Your task to perform on an android device: uninstall "Duolingo: language lessons" Image 0: 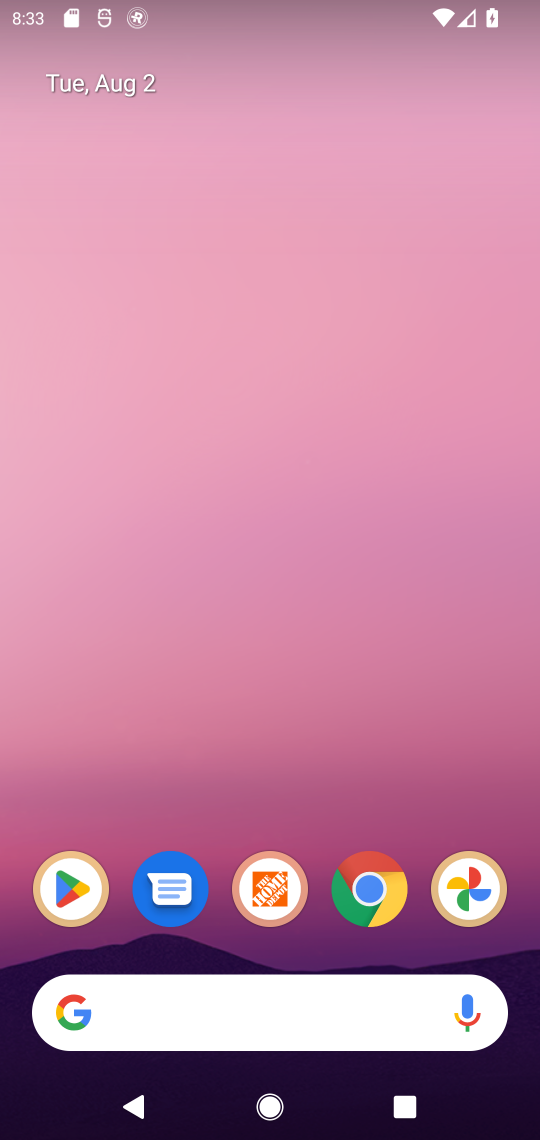
Step 0: press home button
Your task to perform on an android device: uninstall "Duolingo: language lessons" Image 1: 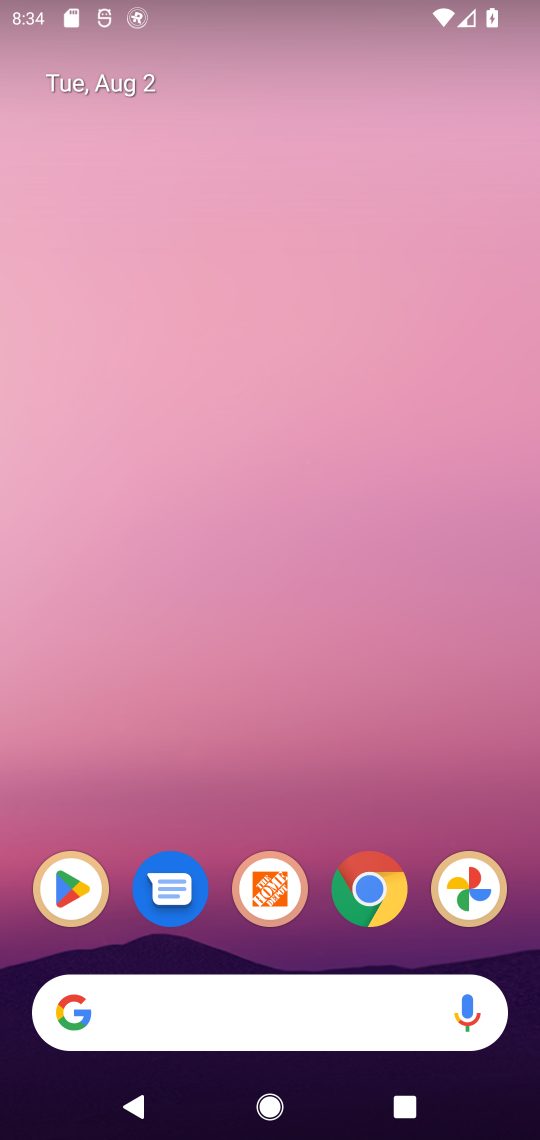
Step 1: click (77, 887)
Your task to perform on an android device: uninstall "Duolingo: language lessons" Image 2: 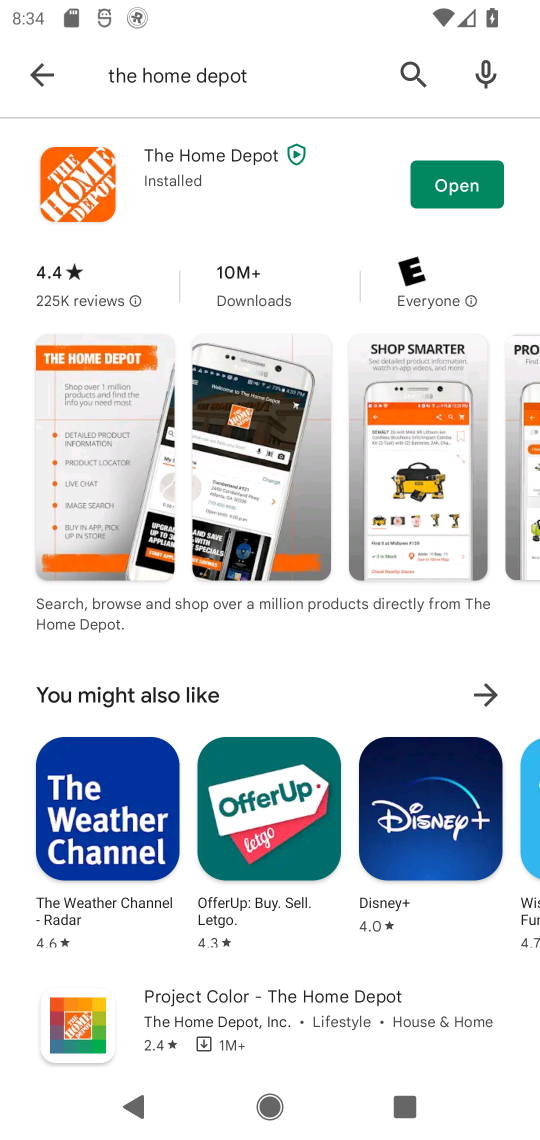
Step 2: click (404, 64)
Your task to perform on an android device: uninstall "Duolingo: language lessons" Image 3: 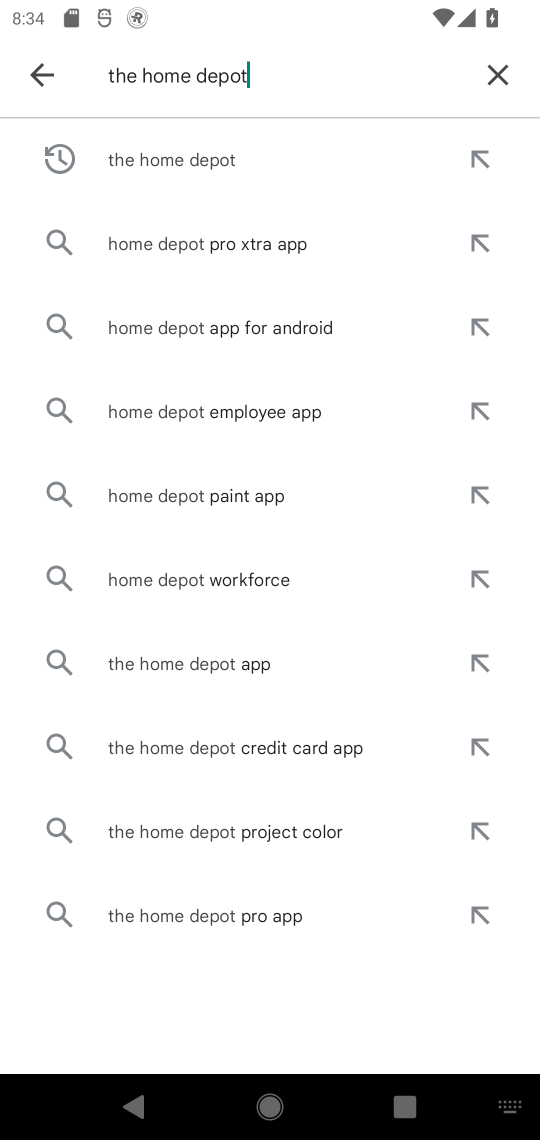
Step 3: click (501, 79)
Your task to perform on an android device: uninstall "Duolingo: language lessons" Image 4: 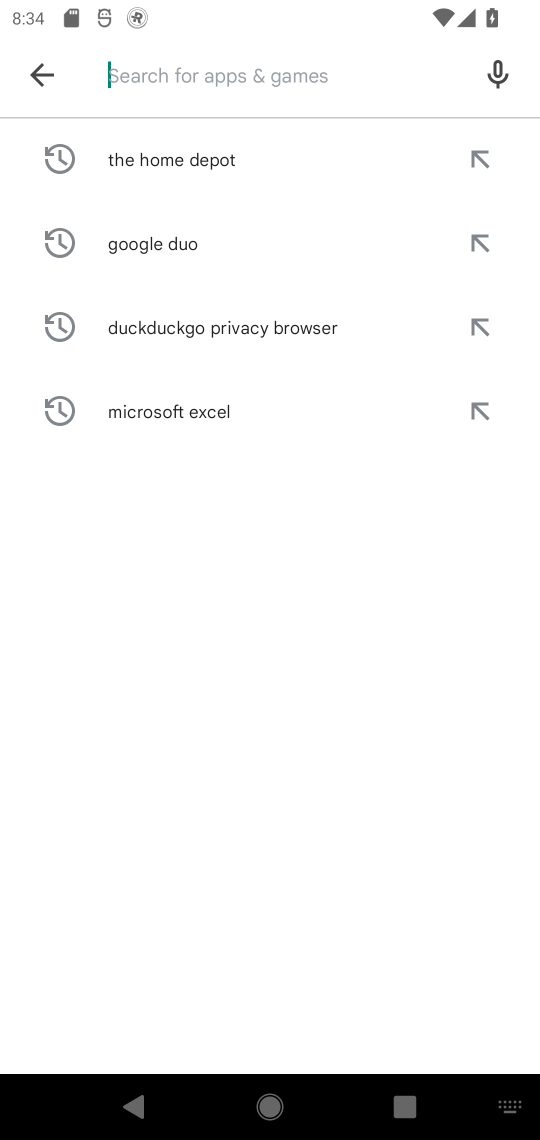
Step 4: type "Duolingo: language lessons"
Your task to perform on an android device: uninstall "Duolingo: language lessons" Image 5: 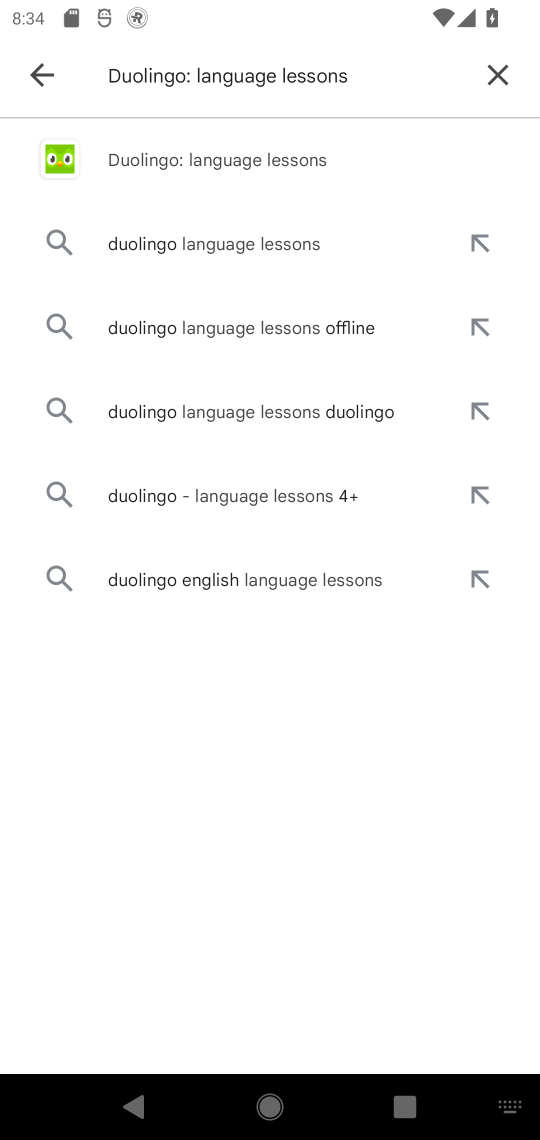
Step 5: click (222, 160)
Your task to perform on an android device: uninstall "Duolingo: language lessons" Image 6: 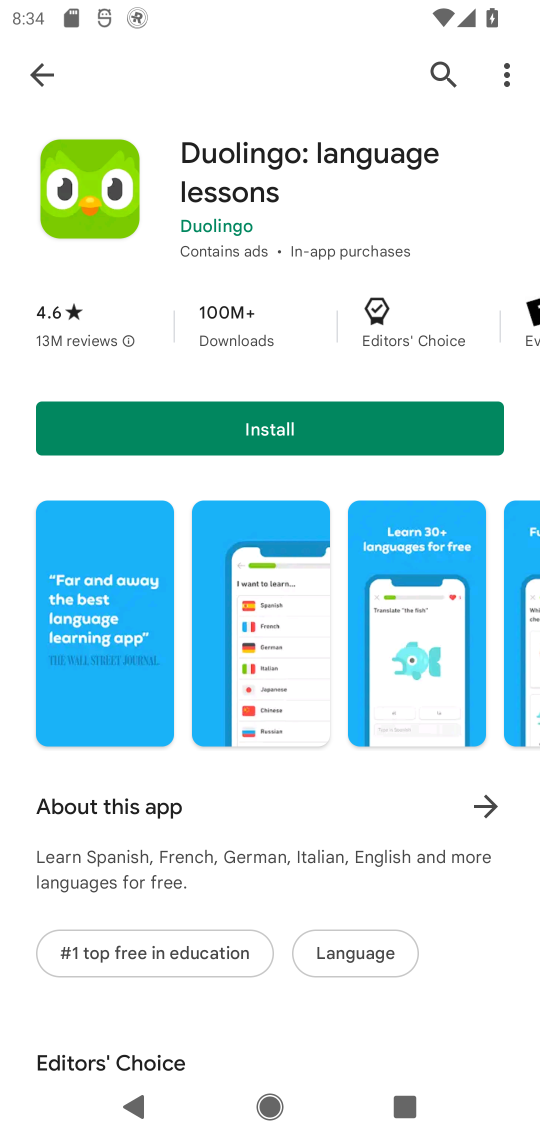
Step 6: task complete